Your task to perform on an android device: turn vacation reply on in the gmail app Image 0: 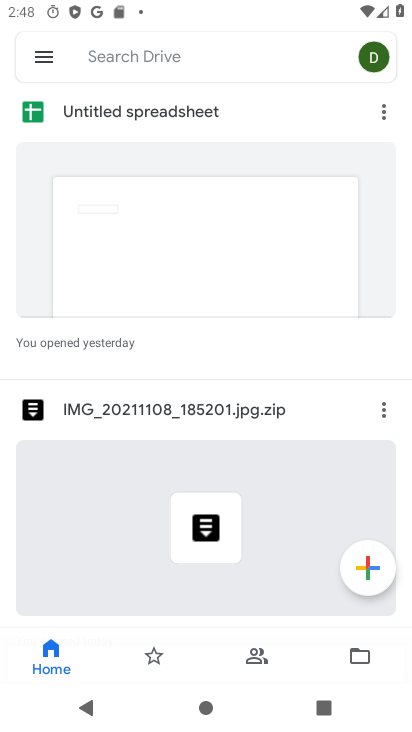
Step 0: press back button
Your task to perform on an android device: turn vacation reply on in the gmail app Image 1: 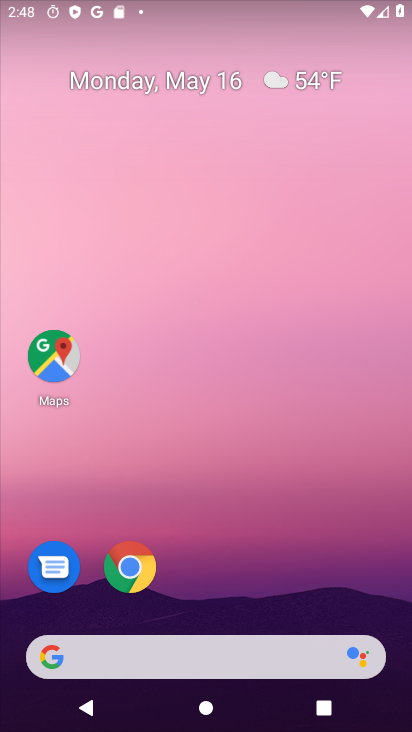
Step 1: drag from (281, 551) to (234, 138)
Your task to perform on an android device: turn vacation reply on in the gmail app Image 2: 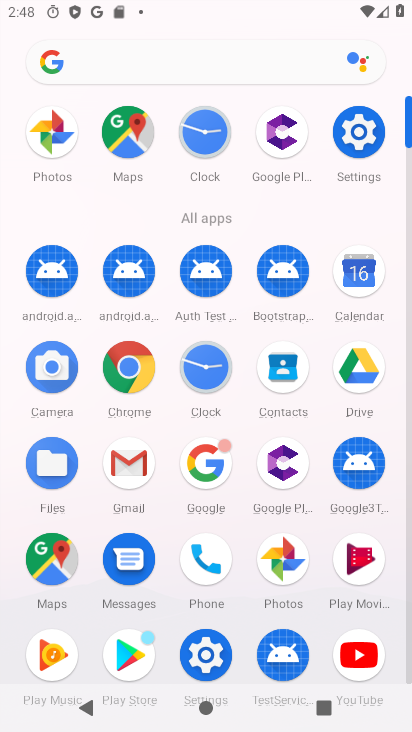
Step 2: click (130, 464)
Your task to perform on an android device: turn vacation reply on in the gmail app Image 3: 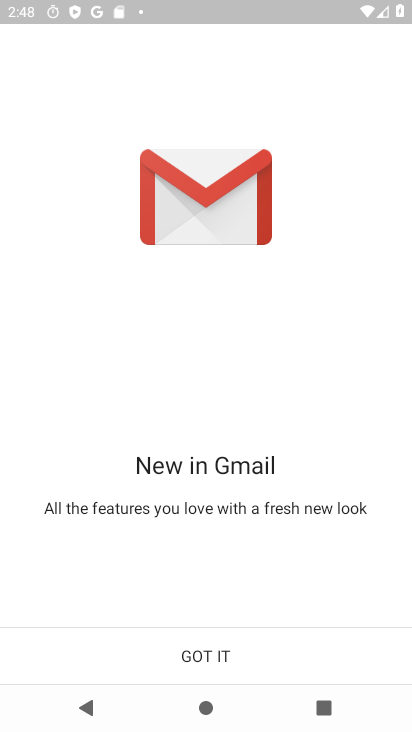
Step 3: click (198, 653)
Your task to perform on an android device: turn vacation reply on in the gmail app Image 4: 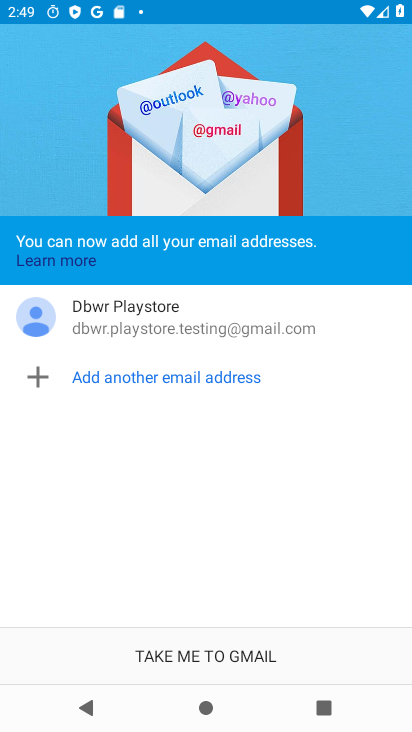
Step 4: click (166, 651)
Your task to perform on an android device: turn vacation reply on in the gmail app Image 5: 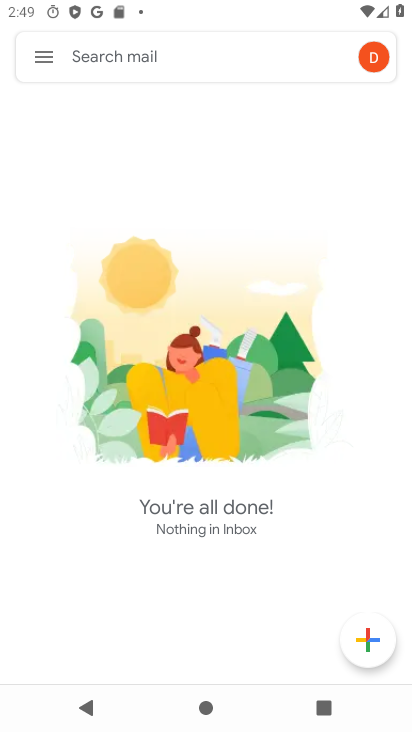
Step 5: click (42, 53)
Your task to perform on an android device: turn vacation reply on in the gmail app Image 6: 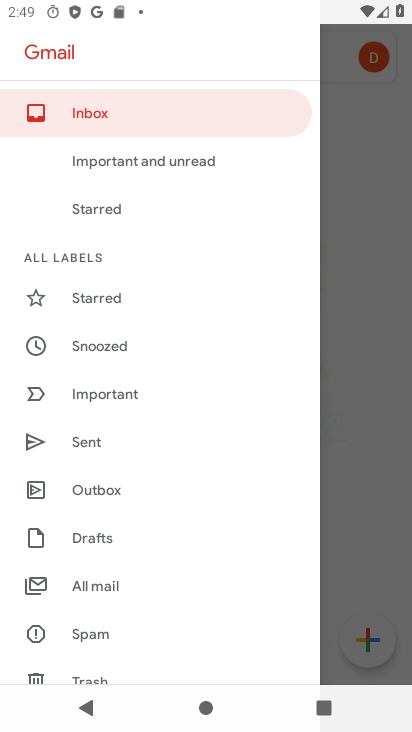
Step 6: drag from (93, 524) to (141, 439)
Your task to perform on an android device: turn vacation reply on in the gmail app Image 7: 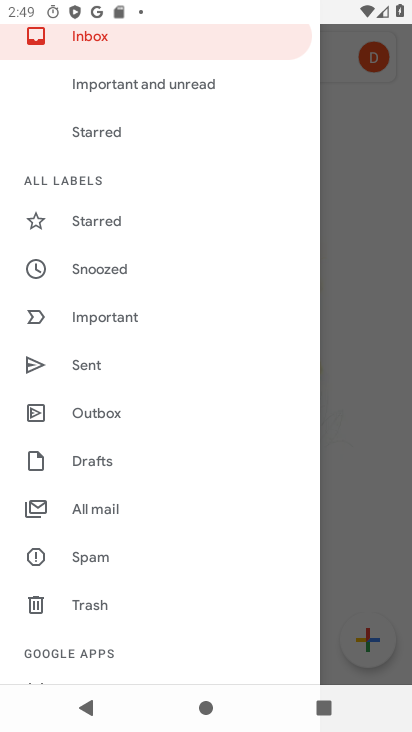
Step 7: drag from (115, 549) to (151, 470)
Your task to perform on an android device: turn vacation reply on in the gmail app Image 8: 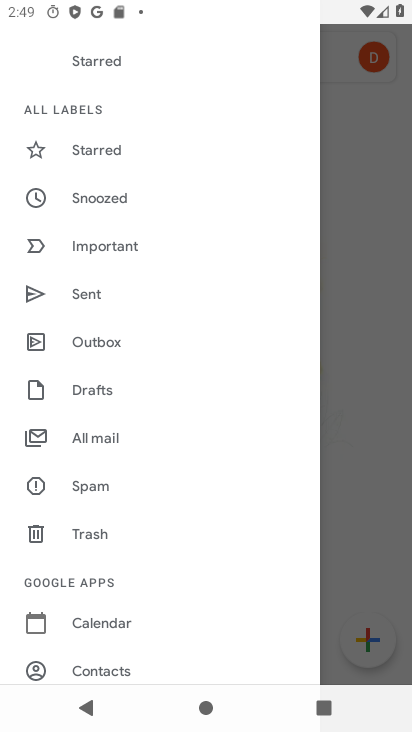
Step 8: drag from (118, 602) to (143, 517)
Your task to perform on an android device: turn vacation reply on in the gmail app Image 9: 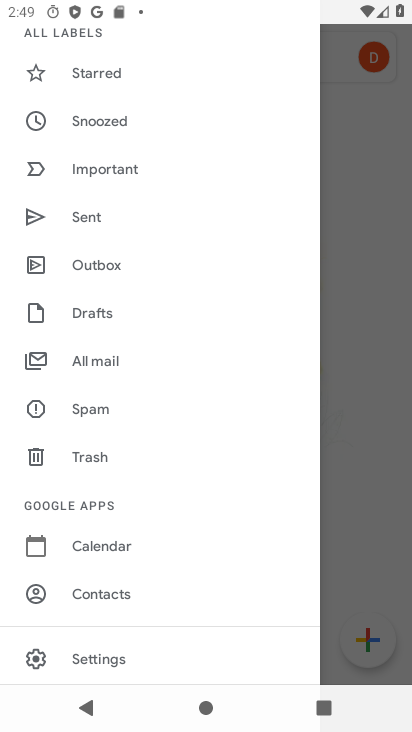
Step 9: drag from (107, 615) to (151, 548)
Your task to perform on an android device: turn vacation reply on in the gmail app Image 10: 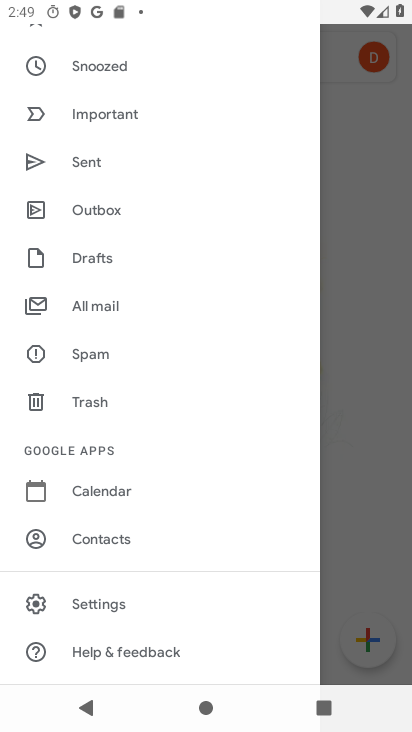
Step 10: click (92, 604)
Your task to perform on an android device: turn vacation reply on in the gmail app Image 11: 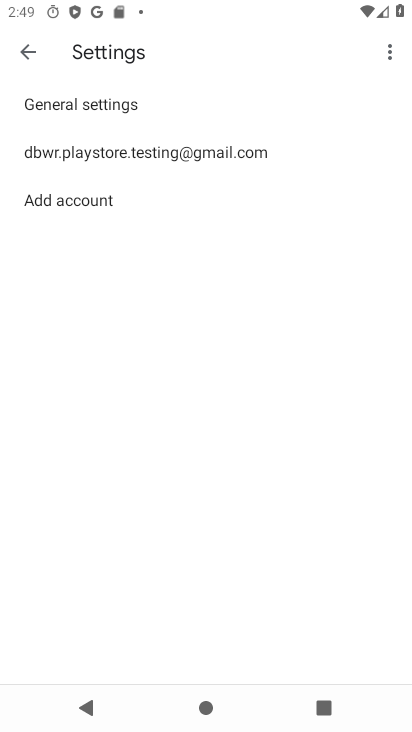
Step 11: click (224, 158)
Your task to perform on an android device: turn vacation reply on in the gmail app Image 12: 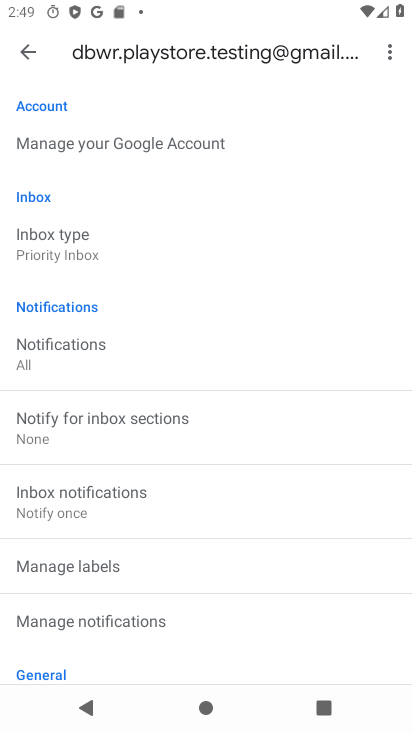
Step 12: drag from (137, 600) to (181, 499)
Your task to perform on an android device: turn vacation reply on in the gmail app Image 13: 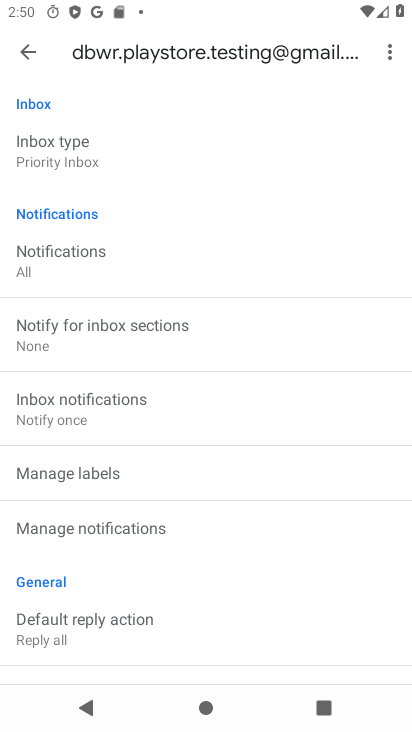
Step 13: drag from (141, 568) to (203, 457)
Your task to perform on an android device: turn vacation reply on in the gmail app Image 14: 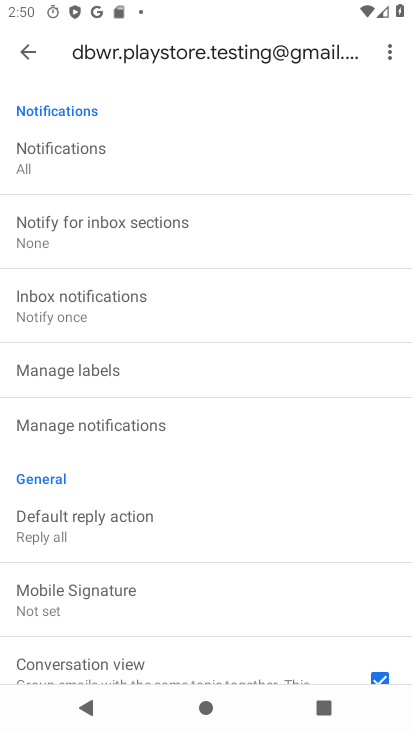
Step 14: drag from (80, 611) to (178, 454)
Your task to perform on an android device: turn vacation reply on in the gmail app Image 15: 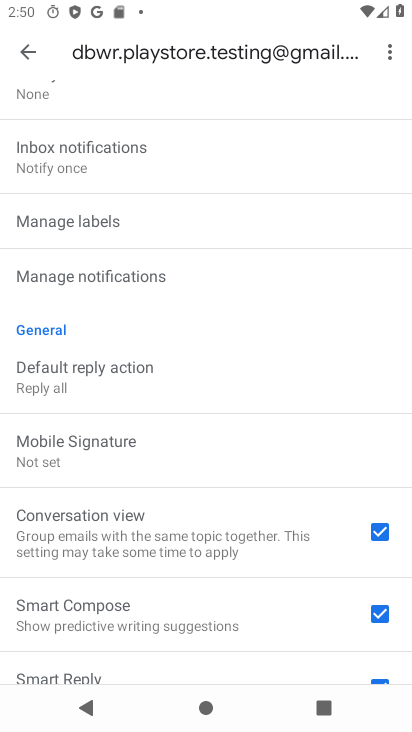
Step 15: drag from (112, 568) to (189, 468)
Your task to perform on an android device: turn vacation reply on in the gmail app Image 16: 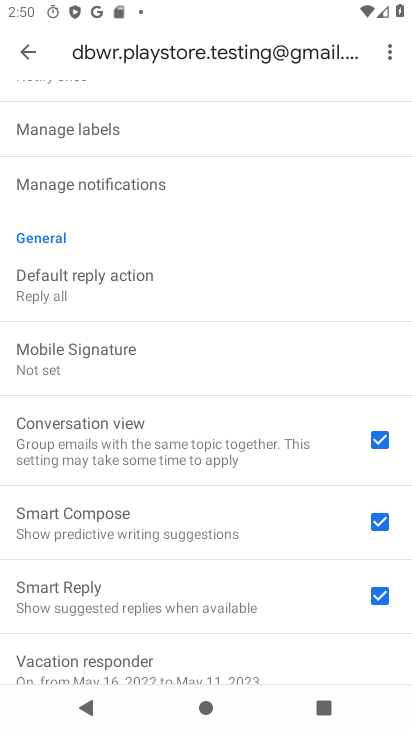
Step 16: drag from (177, 627) to (252, 507)
Your task to perform on an android device: turn vacation reply on in the gmail app Image 17: 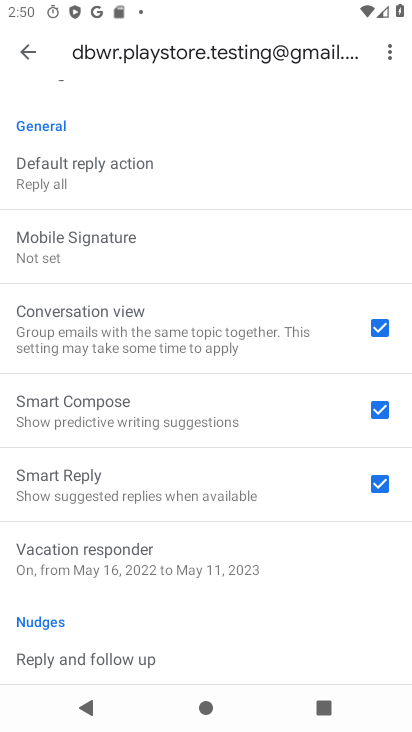
Step 17: click (188, 572)
Your task to perform on an android device: turn vacation reply on in the gmail app Image 18: 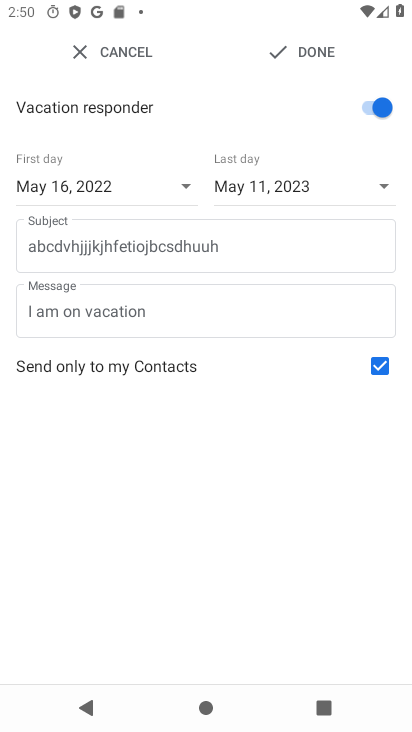
Step 18: task complete